Your task to perform on an android device: empty trash in the gmail app Image 0: 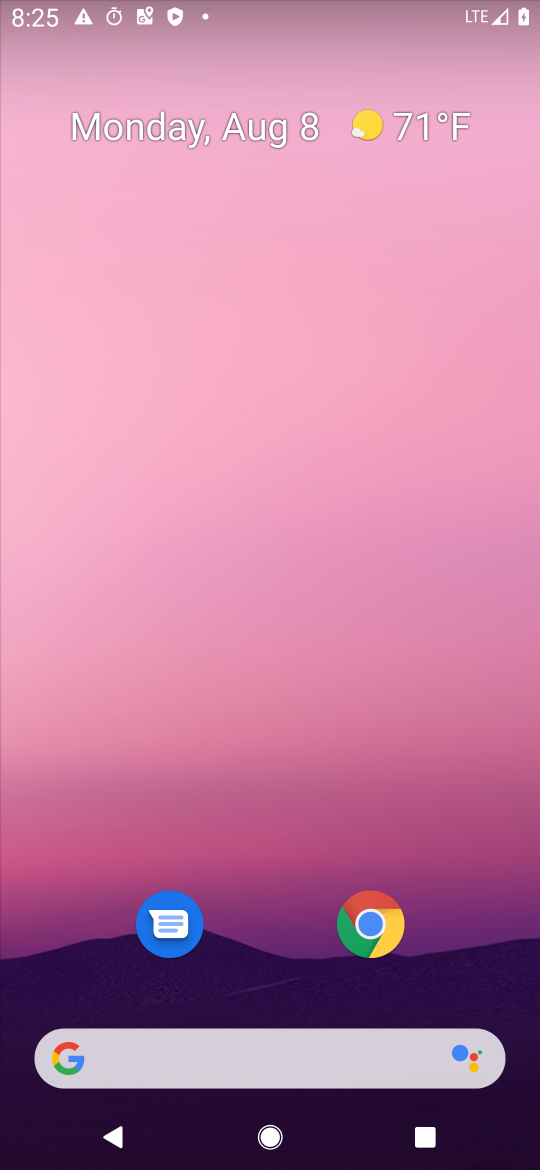
Step 0: click (517, 448)
Your task to perform on an android device: empty trash in the gmail app Image 1: 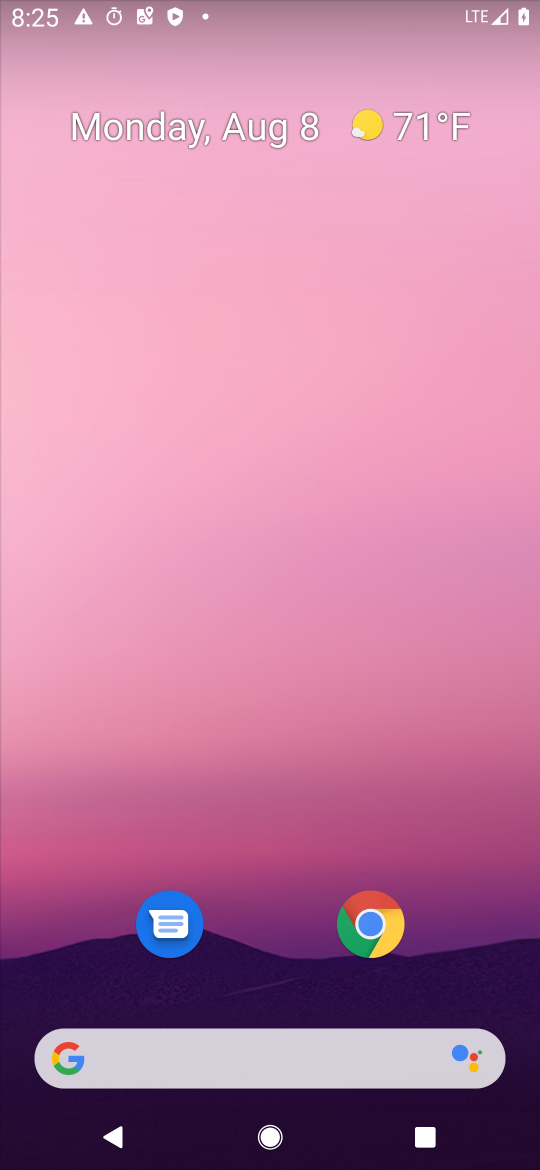
Step 1: drag from (253, 924) to (110, 6)
Your task to perform on an android device: empty trash in the gmail app Image 2: 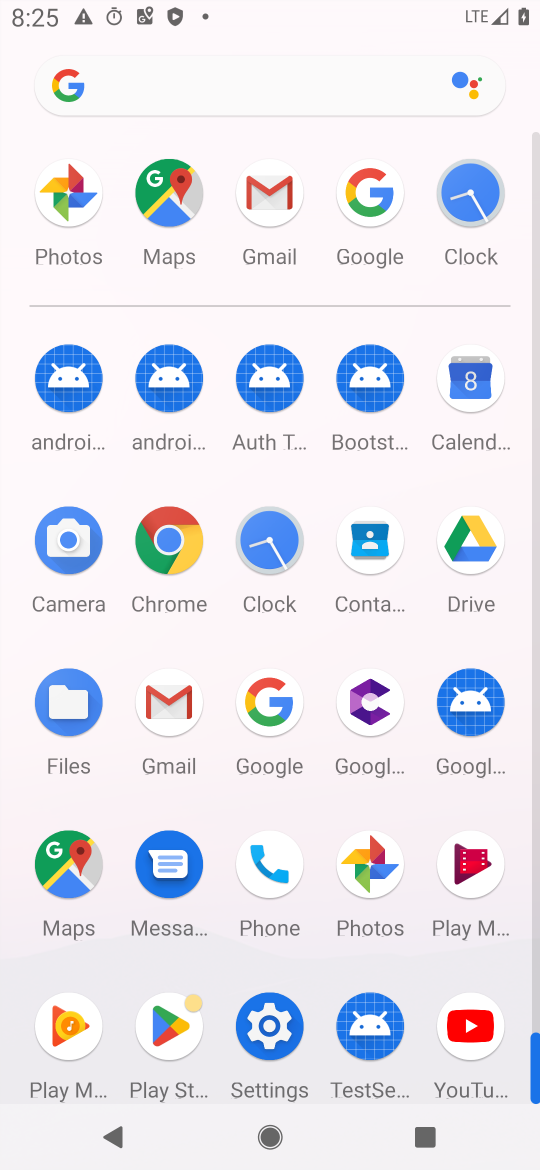
Step 2: click (158, 701)
Your task to perform on an android device: empty trash in the gmail app Image 3: 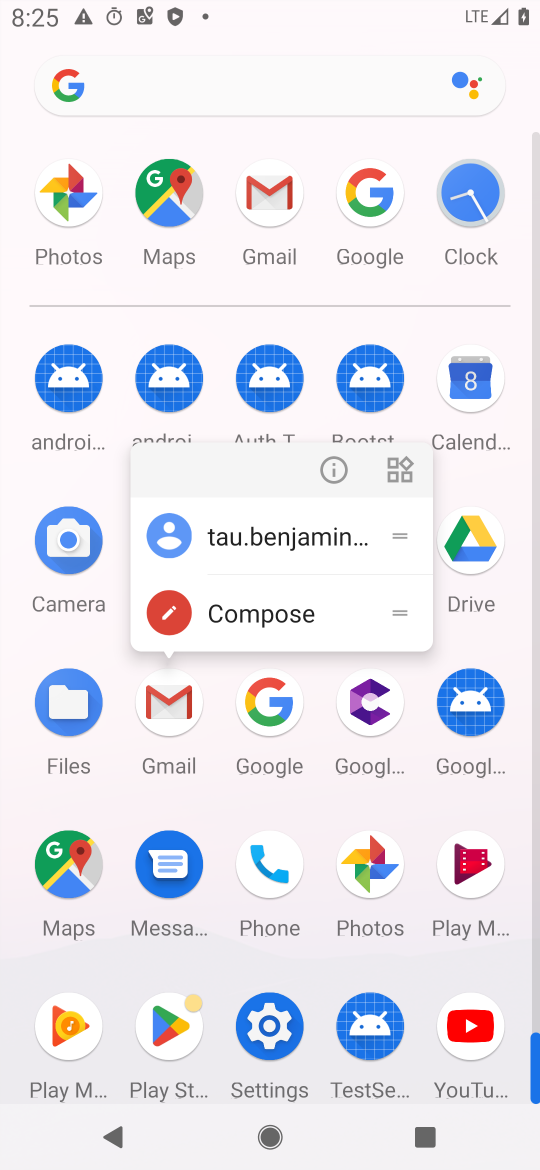
Step 3: click (344, 474)
Your task to perform on an android device: empty trash in the gmail app Image 4: 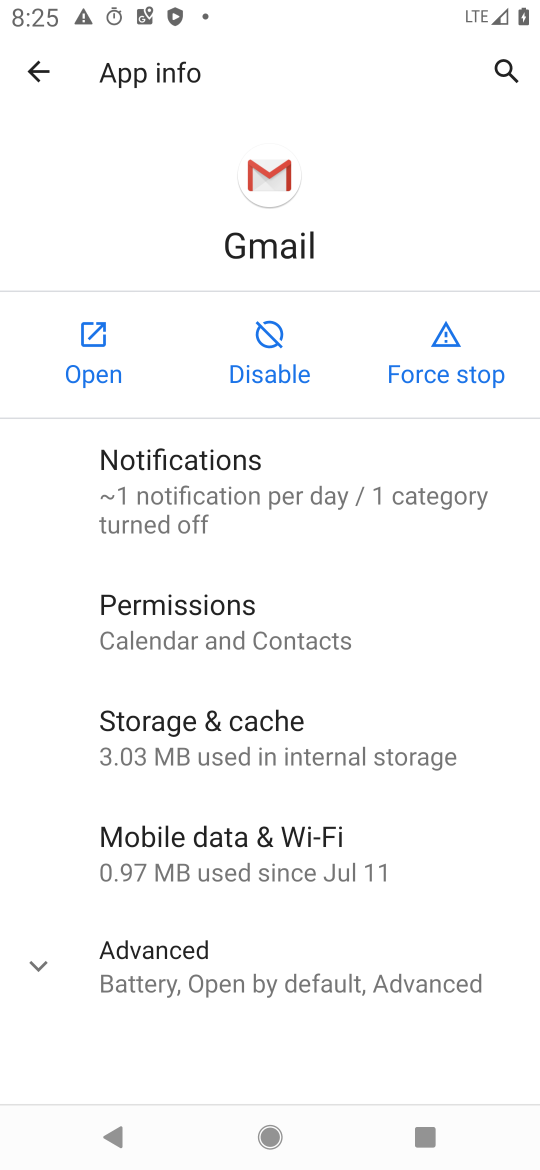
Step 4: click (98, 337)
Your task to perform on an android device: empty trash in the gmail app Image 5: 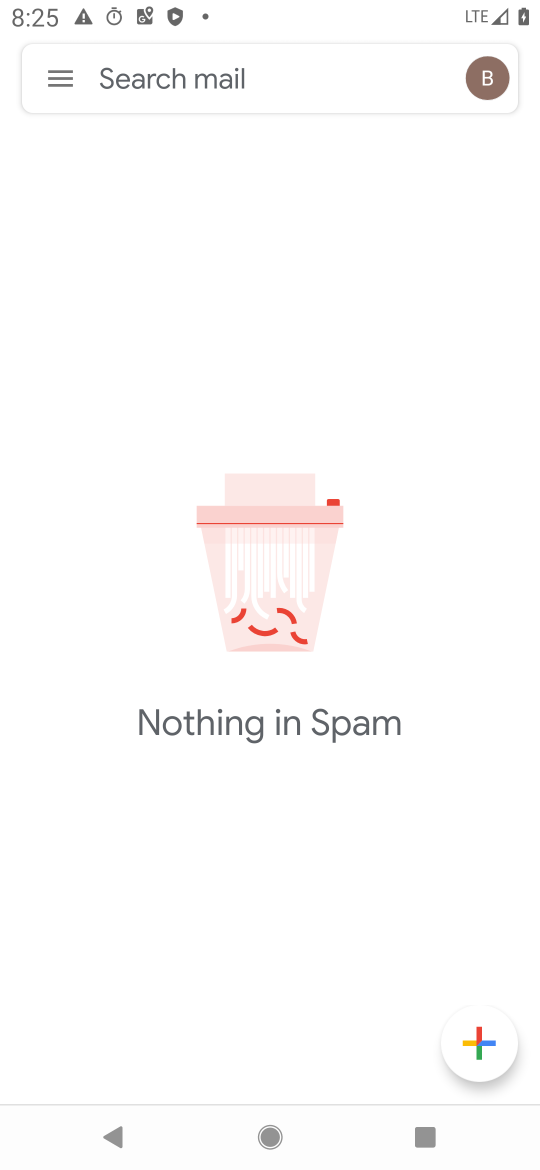
Step 5: click (71, 97)
Your task to perform on an android device: empty trash in the gmail app Image 6: 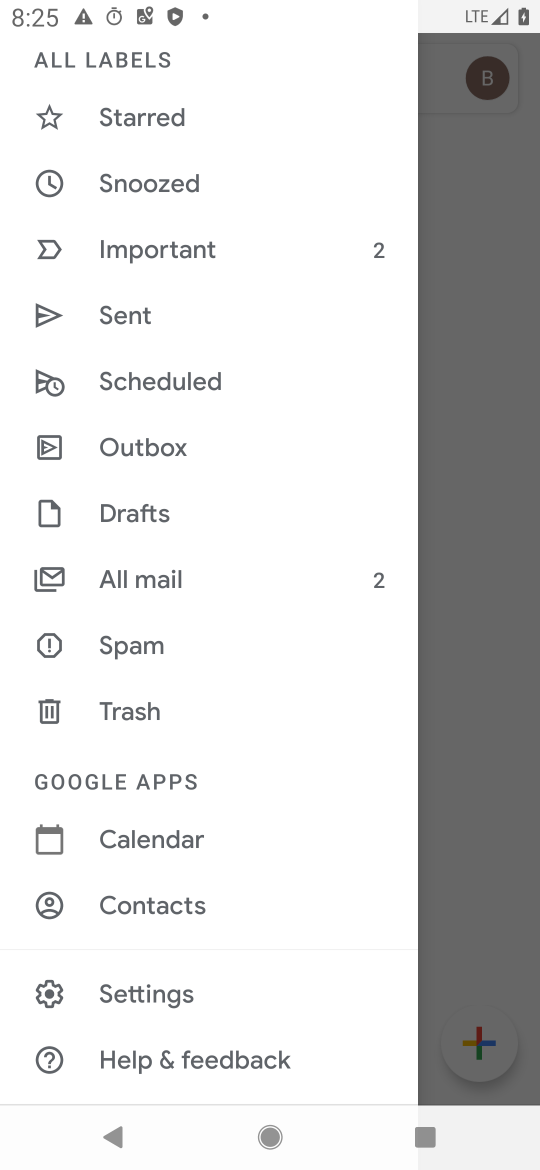
Step 6: click (113, 719)
Your task to perform on an android device: empty trash in the gmail app Image 7: 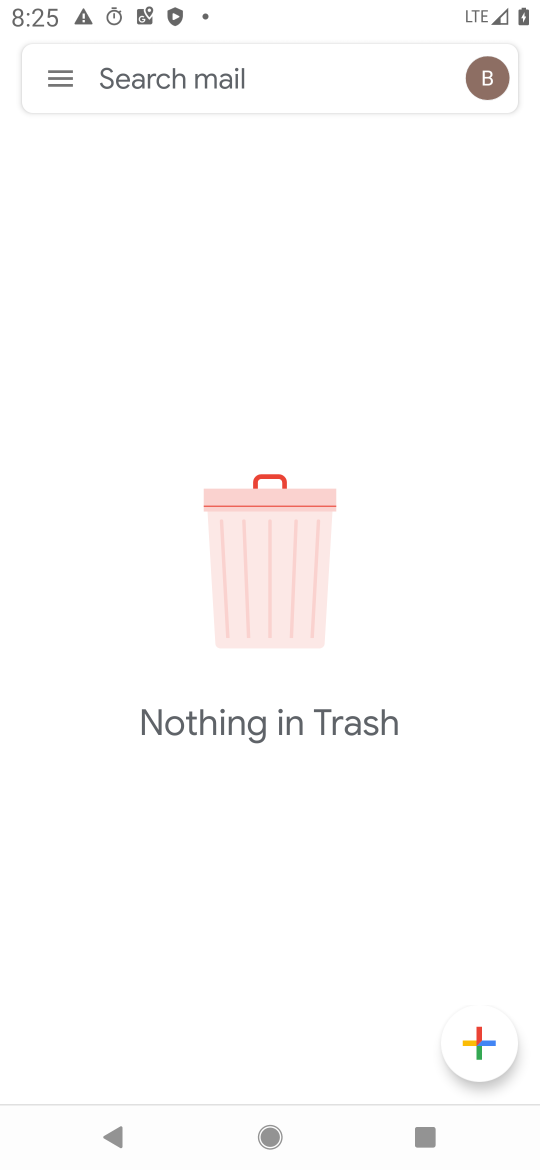
Step 7: task complete